Your task to perform on an android device: open a new tab in the chrome app Image 0: 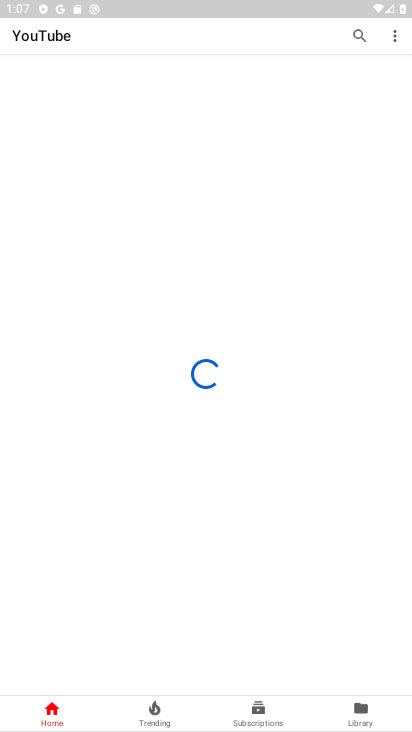
Step 0: press home button
Your task to perform on an android device: open a new tab in the chrome app Image 1: 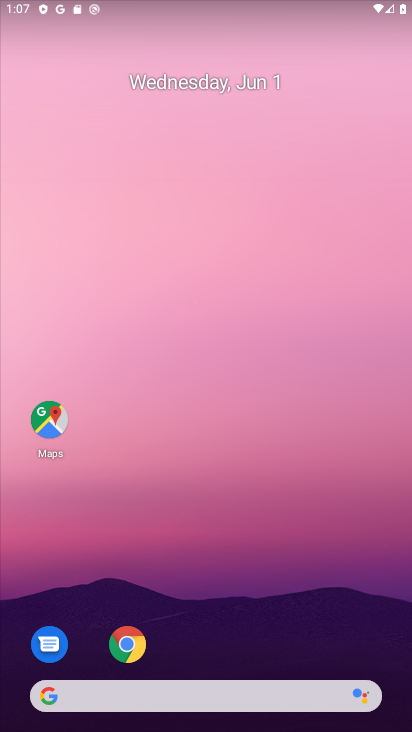
Step 1: click (134, 642)
Your task to perform on an android device: open a new tab in the chrome app Image 2: 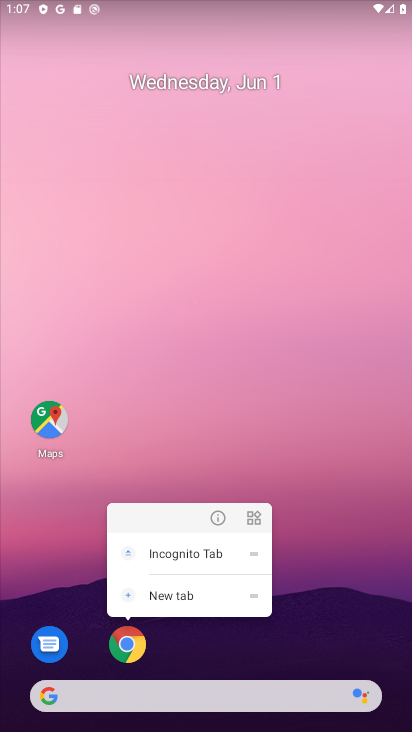
Step 2: click (134, 648)
Your task to perform on an android device: open a new tab in the chrome app Image 3: 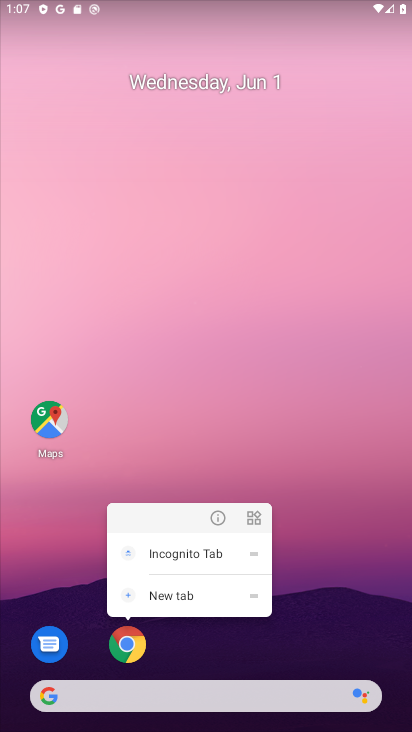
Step 3: click (128, 649)
Your task to perform on an android device: open a new tab in the chrome app Image 4: 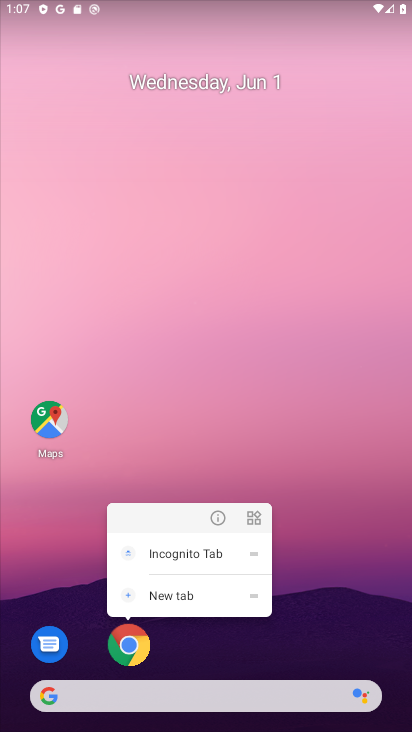
Step 4: click (128, 649)
Your task to perform on an android device: open a new tab in the chrome app Image 5: 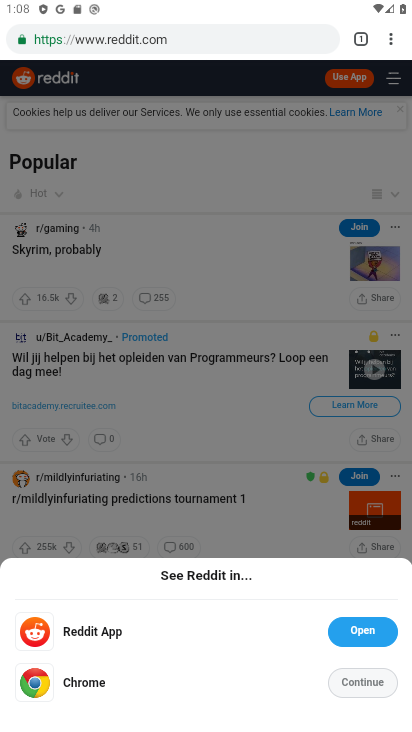
Step 5: task complete